Your task to perform on an android device: toggle notifications settings in the gmail app Image 0: 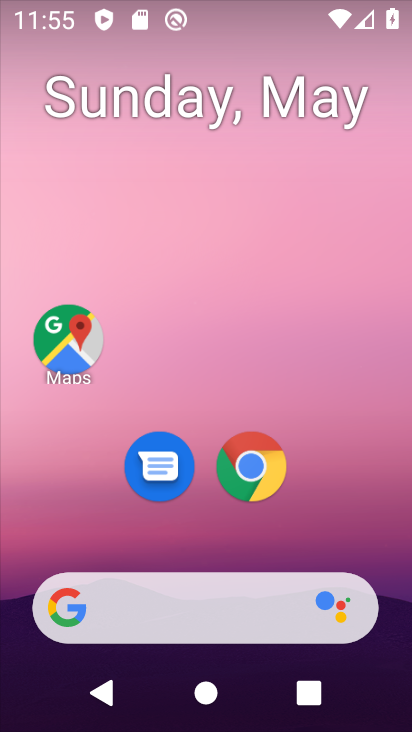
Step 0: press home button
Your task to perform on an android device: toggle notifications settings in the gmail app Image 1: 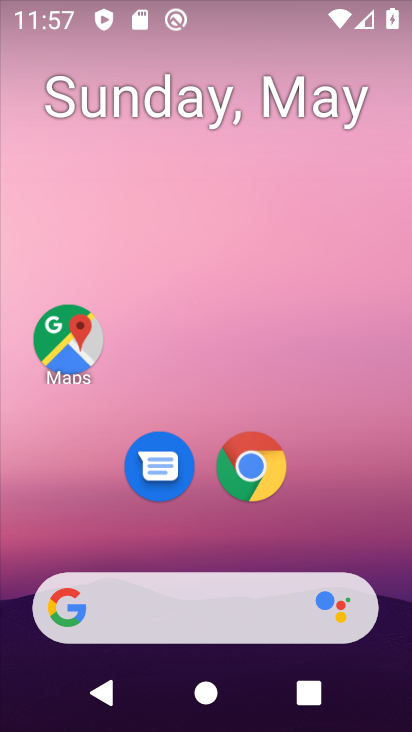
Step 1: drag from (304, 508) to (272, 38)
Your task to perform on an android device: toggle notifications settings in the gmail app Image 2: 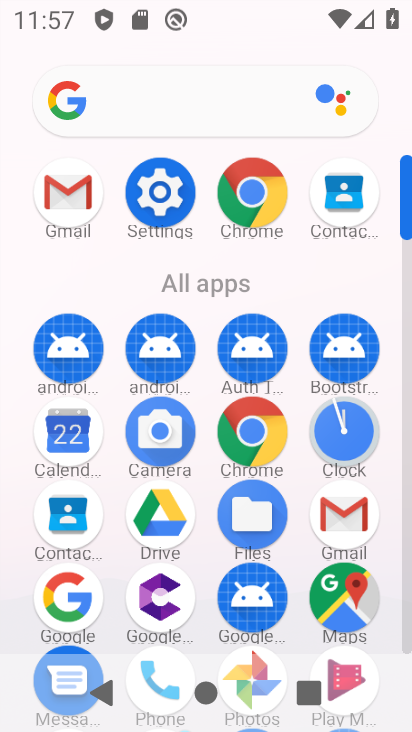
Step 2: click (332, 516)
Your task to perform on an android device: toggle notifications settings in the gmail app Image 3: 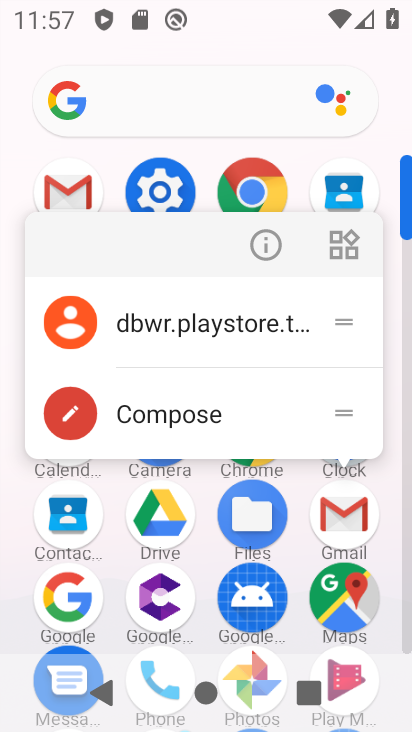
Step 3: click (273, 238)
Your task to perform on an android device: toggle notifications settings in the gmail app Image 4: 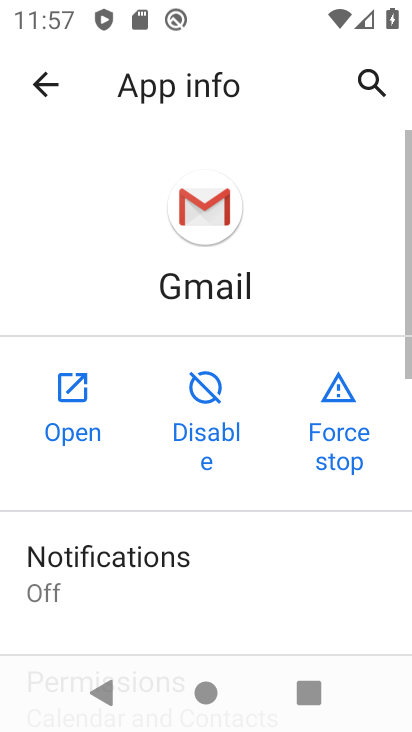
Step 4: click (81, 590)
Your task to perform on an android device: toggle notifications settings in the gmail app Image 5: 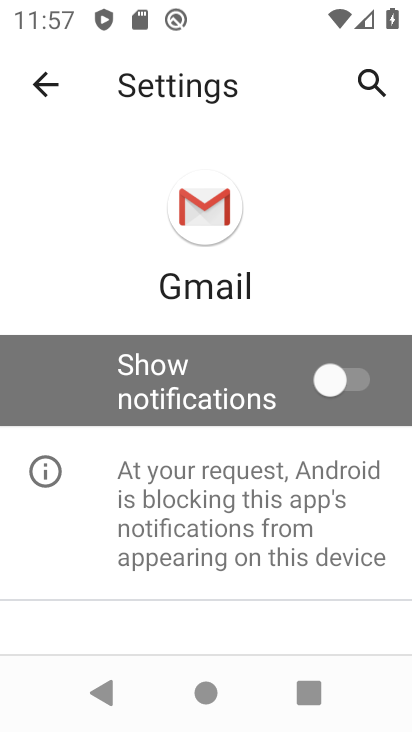
Step 5: click (348, 375)
Your task to perform on an android device: toggle notifications settings in the gmail app Image 6: 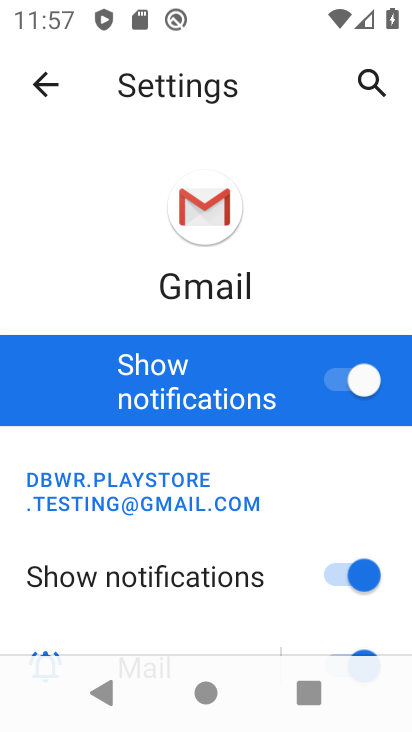
Step 6: task complete